Your task to perform on an android device: turn on sleep mode Image 0: 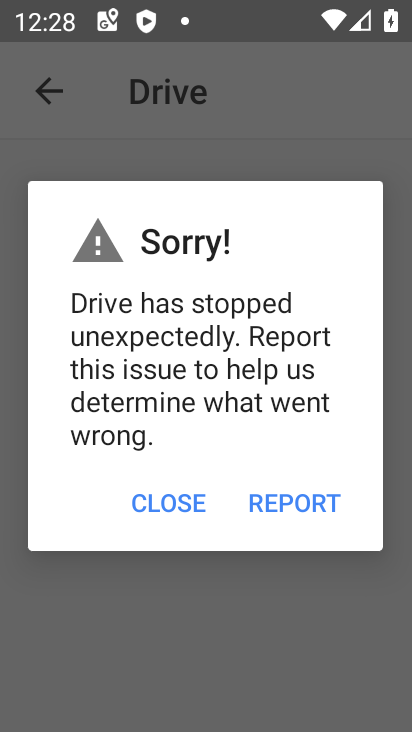
Step 0: press home button
Your task to perform on an android device: turn on sleep mode Image 1: 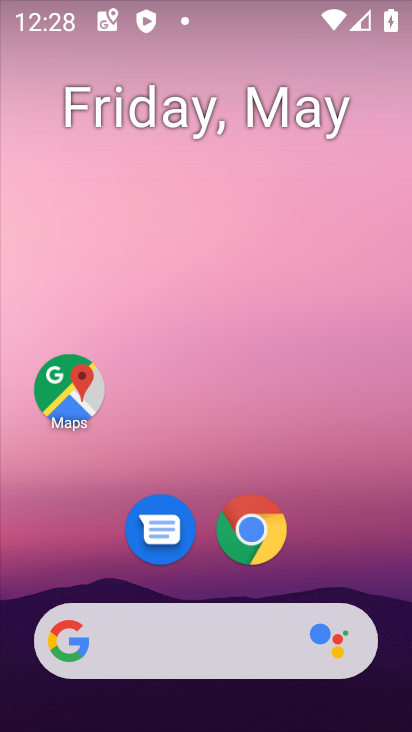
Step 1: drag from (269, 390) to (91, 85)
Your task to perform on an android device: turn on sleep mode Image 2: 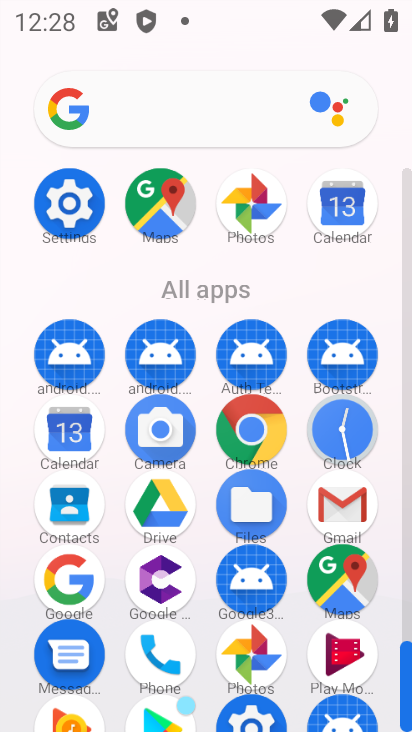
Step 2: click (71, 212)
Your task to perform on an android device: turn on sleep mode Image 3: 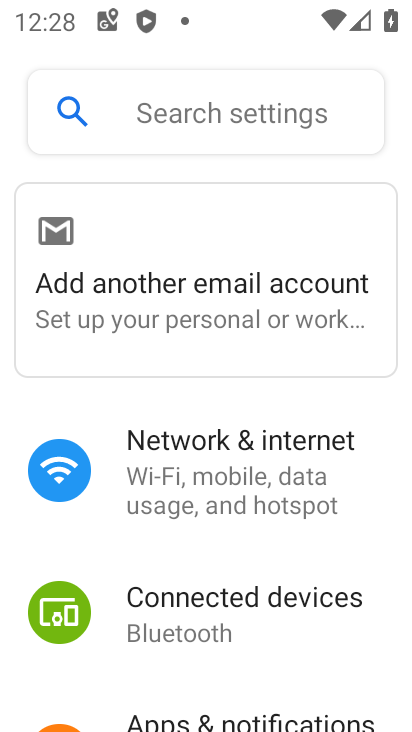
Step 3: drag from (196, 657) to (192, 254)
Your task to perform on an android device: turn on sleep mode Image 4: 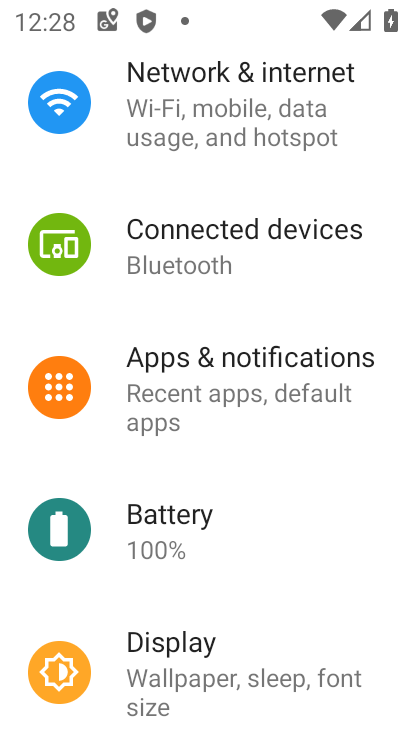
Step 4: click (226, 653)
Your task to perform on an android device: turn on sleep mode Image 5: 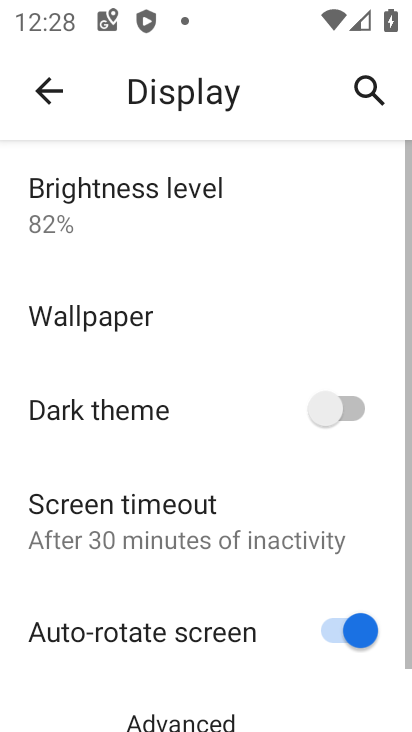
Step 5: drag from (213, 657) to (204, 314)
Your task to perform on an android device: turn on sleep mode Image 6: 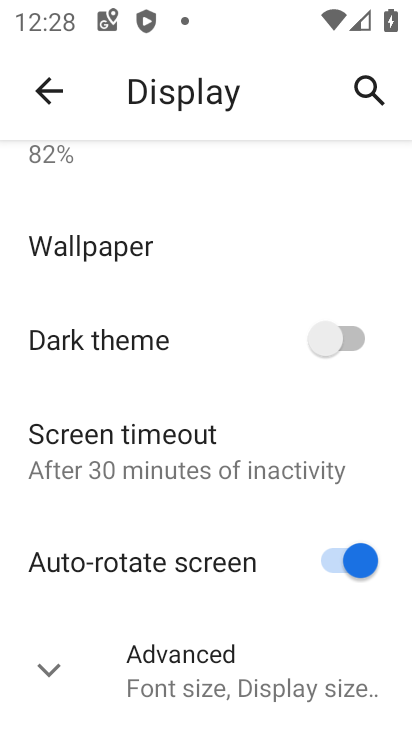
Step 6: click (177, 670)
Your task to perform on an android device: turn on sleep mode Image 7: 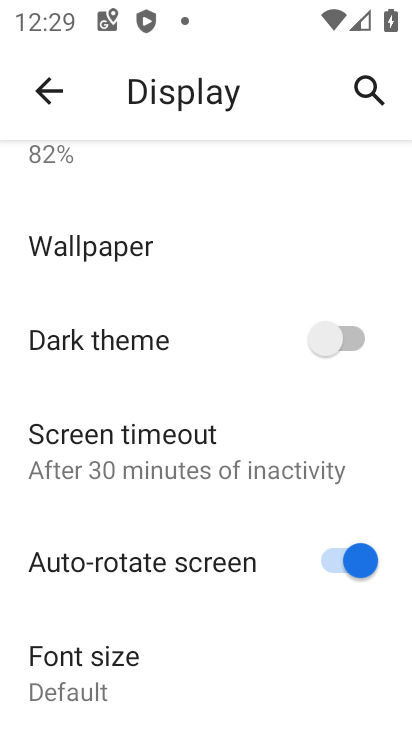
Step 7: task complete